Your task to perform on an android device: Set the phone to "Do not disturb". Image 0: 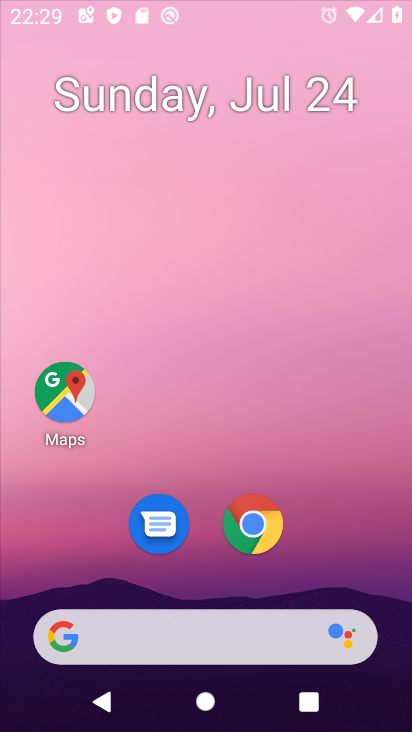
Step 0: press home button
Your task to perform on an android device: Set the phone to "Do not disturb". Image 1: 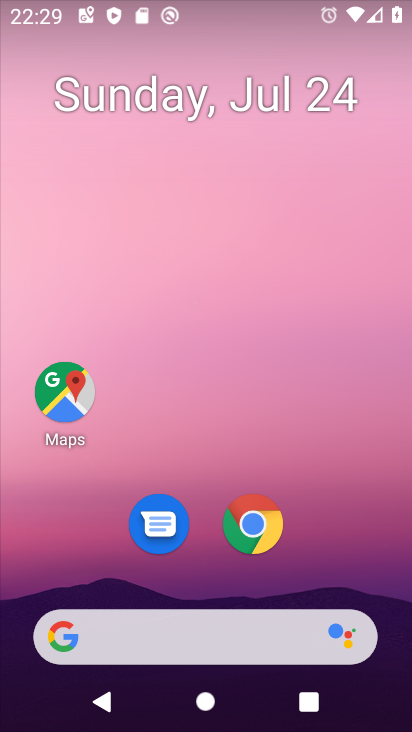
Step 1: drag from (194, 644) to (261, 67)
Your task to perform on an android device: Set the phone to "Do not disturb". Image 2: 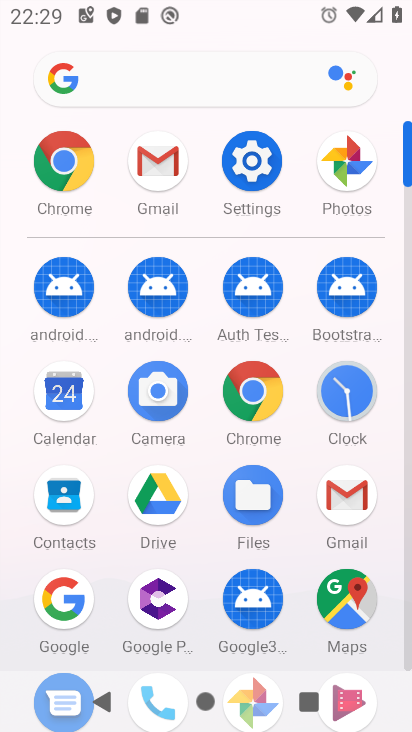
Step 2: click (248, 167)
Your task to perform on an android device: Set the phone to "Do not disturb". Image 3: 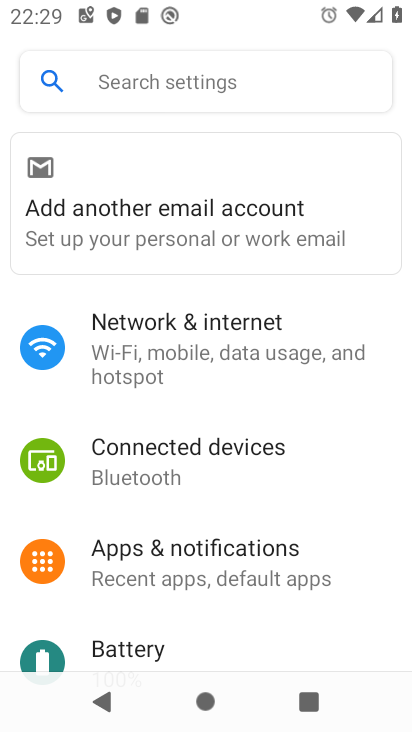
Step 3: drag from (236, 614) to (292, 287)
Your task to perform on an android device: Set the phone to "Do not disturb". Image 4: 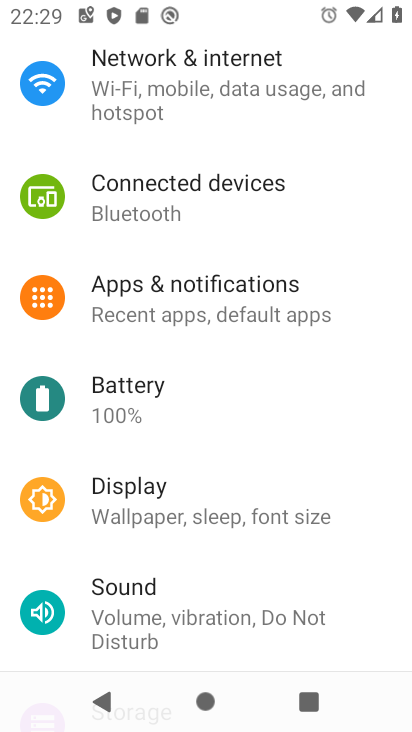
Step 4: click (162, 594)
Your task to perform on an android device: Set the phone to "Do not disturb". Image 5: 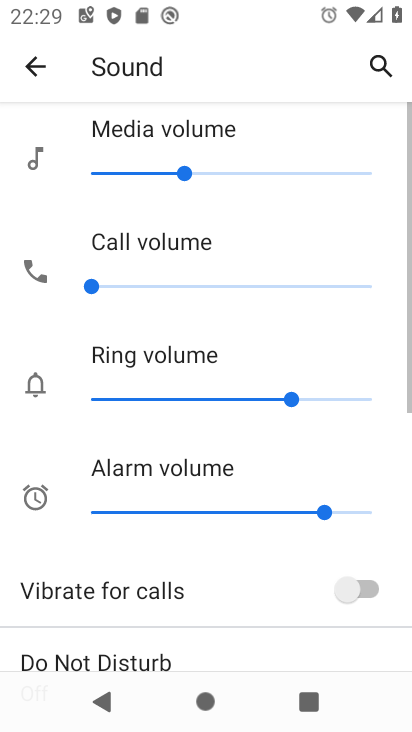
Step 5: drag from (165, 646) to (265, 120)
Your task to perform on an android device: Set the phone to "Do not disturb". Image 6: 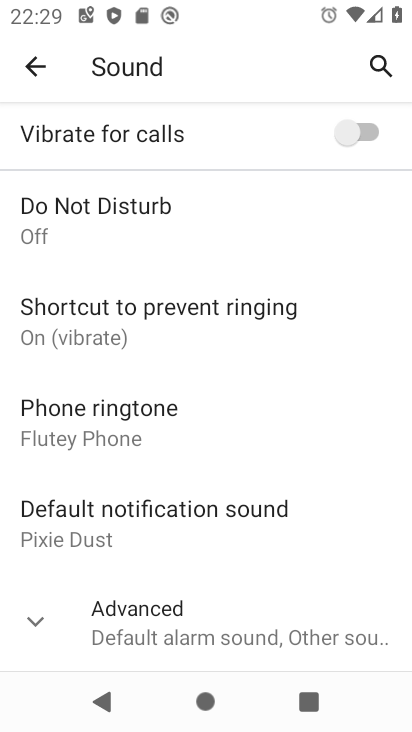
Step 6: click (47, 235)
Your task to perform on an android device: Set the phone to "Do not disturb". Image 7: 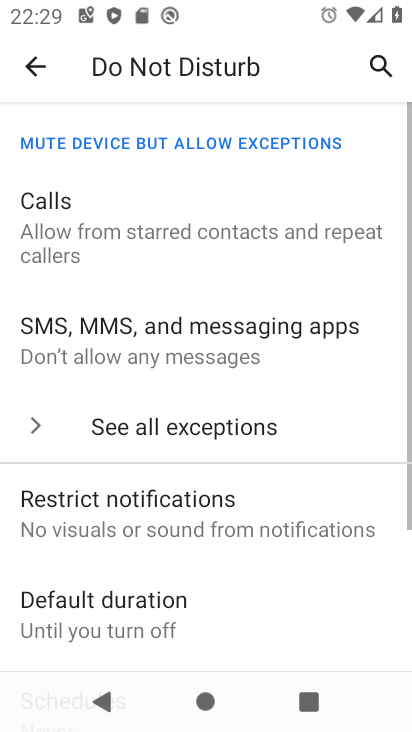
Step 7: drag from (145, 599) to (282, 92)
Your task to perform on an android device: Set the phone to "Do not disturb". Image 8: 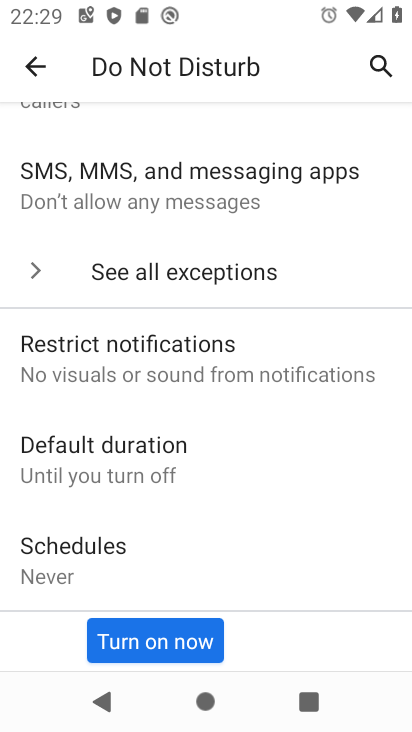
Step 8: click (159, 652)
Your task to perform on an android device: Set the phone to "Do not disturb". Image 9: 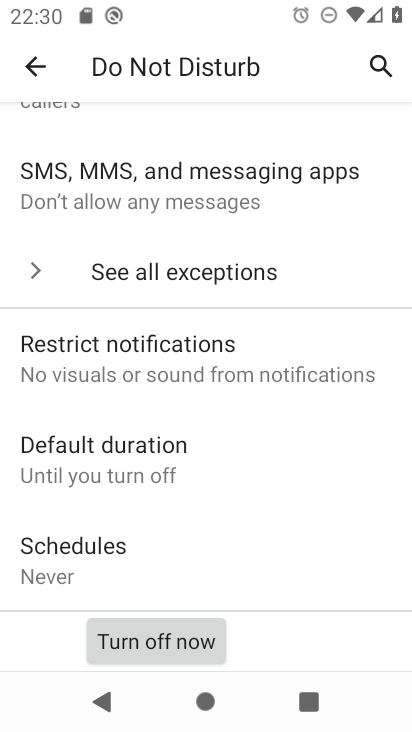
Step 9: task complete